Your task to perform on an android device: Open the web browser Image 0: 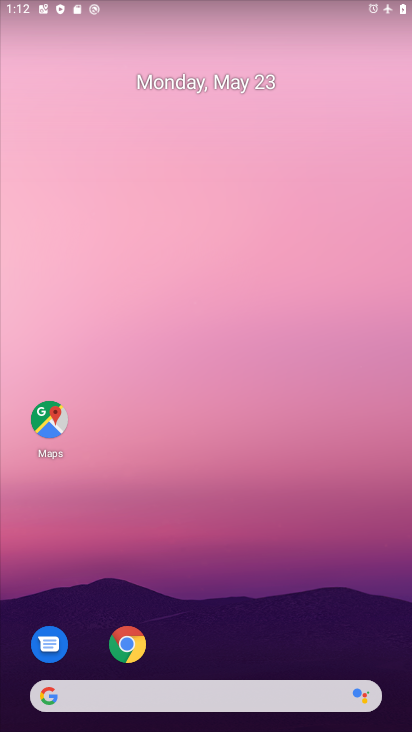
Step 0: drag from (254, 633) to (208, 35)
Your task to perform on an android device: Open the web browser Image 1: 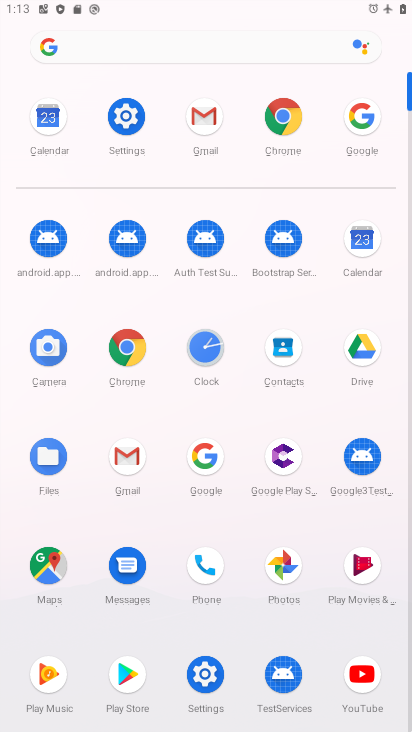
Step 1: click (122, 323)
Your task to perform on an android device: Open the web browser Image 2: 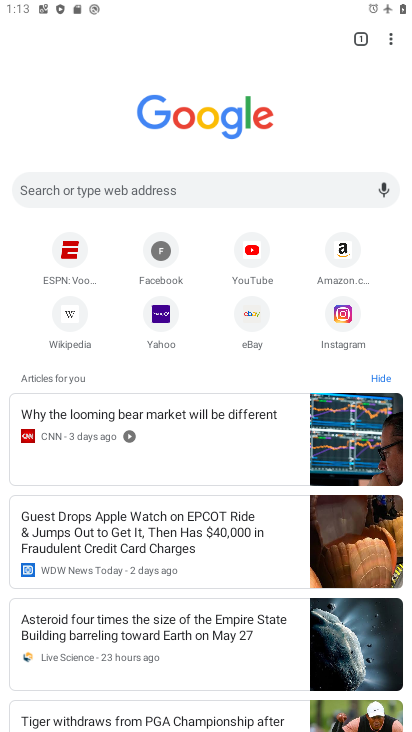
Step 2: task complete